Your task to perform on an android device: Show me popular videos on Youtube Image 0: 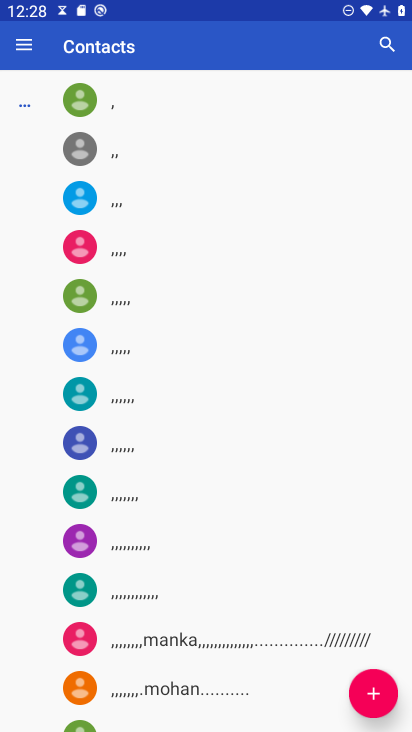
Step 0: press back button
Your task to perform on an android device: Show me popular videos on Youtube Image 1: 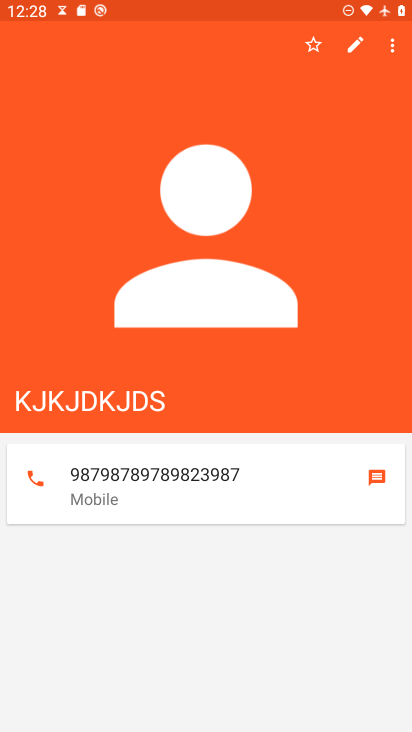
Step 1: press home button
Your task to perform on an android device: Show me popular videos on Youtube Image 2: 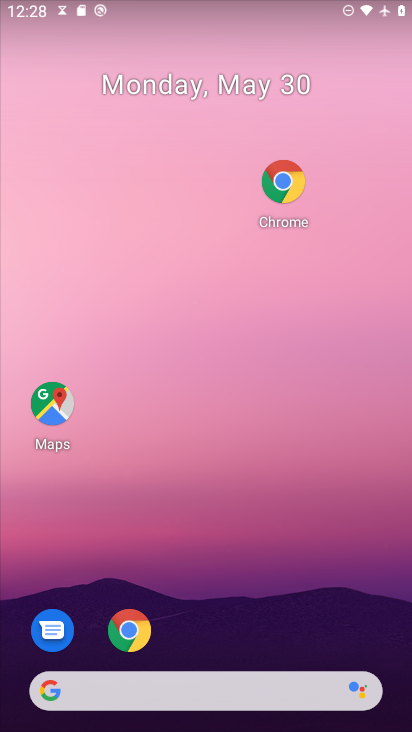
Step 2: drag from (213, 679) to (137, 55)
Your task to perform on an android device: Show me popular videos on Youtube Image 3: 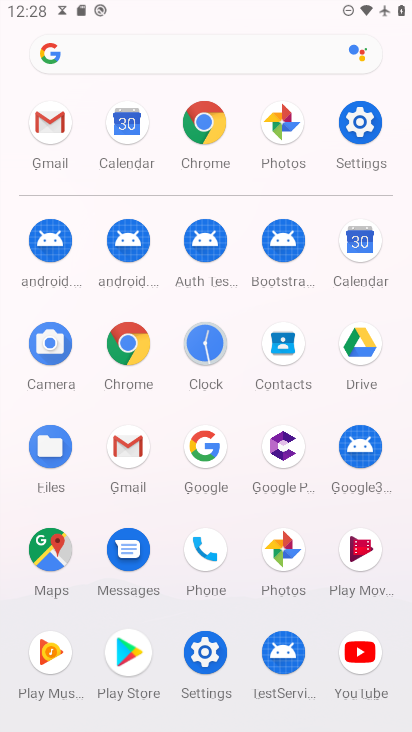
Step 3: click (351, 653)
Your task to perform on an android device: Show me popular videos on Youtube Image 4: 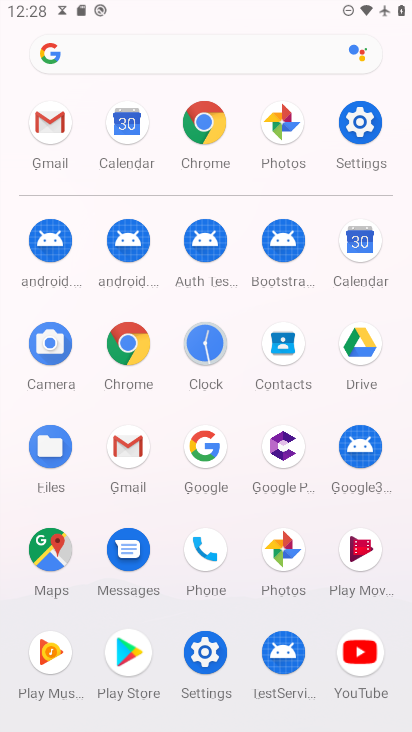
Step 4: click (350, 643)
Your task to perform on an android device: Show me popular videos on Youtube Image 5: 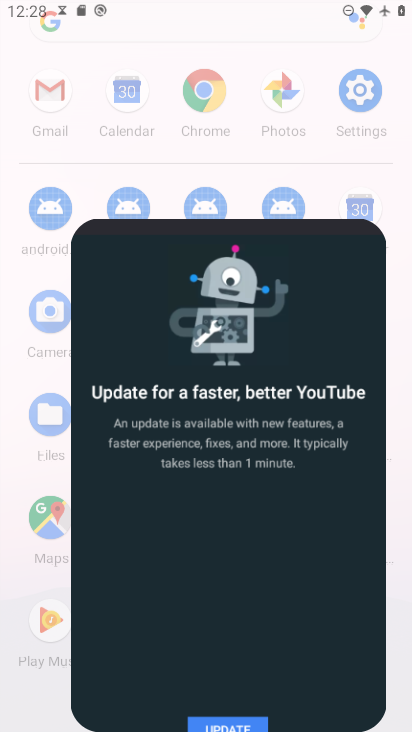
Step 5: click (350, 643)
Your task to perform on an android device: Show me popular videos on Youtube Image 6: 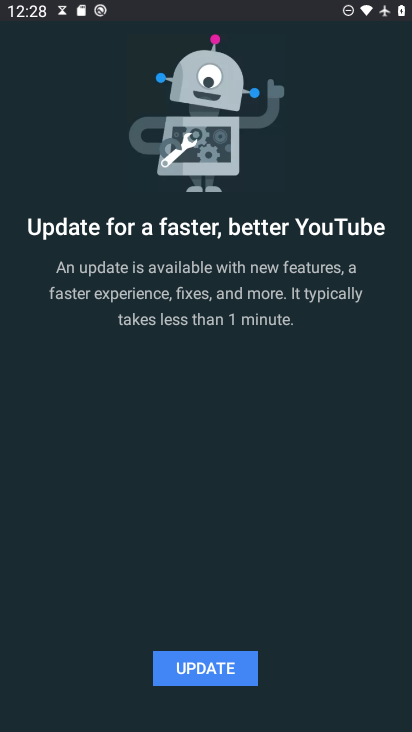
Step 6: press back button
Your task to perform on an android device: Show me popular videos on Youtube Image 7: 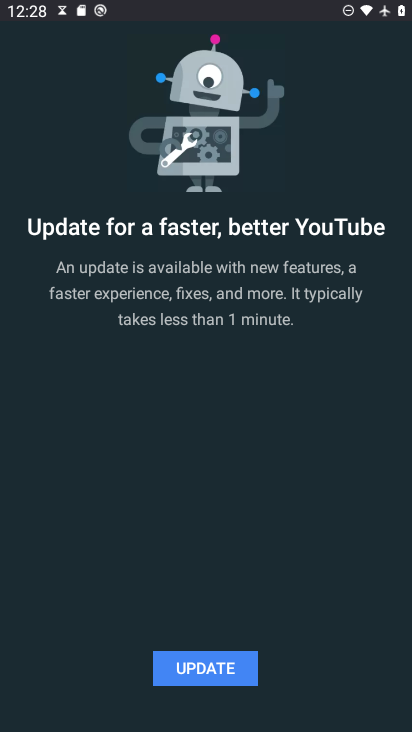
Step 7: press back button
Your task to perform on an android device: Show me popular videos on Youtube Image 8: 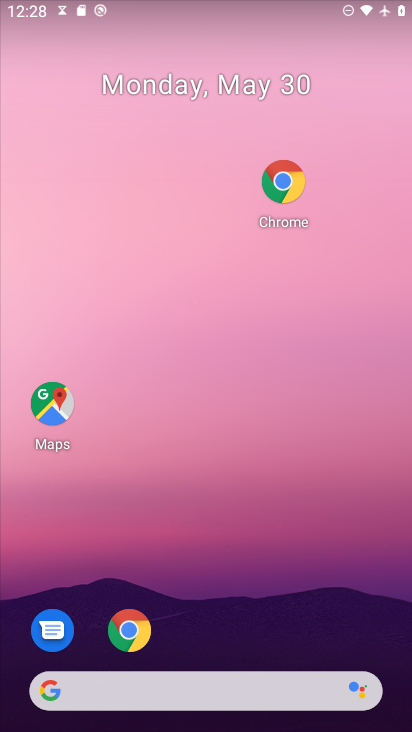
Step 8: drag from (269, 657) to (233, 19)
Your task to perform on an android device: Show me popular videos on Youtube Image 9: 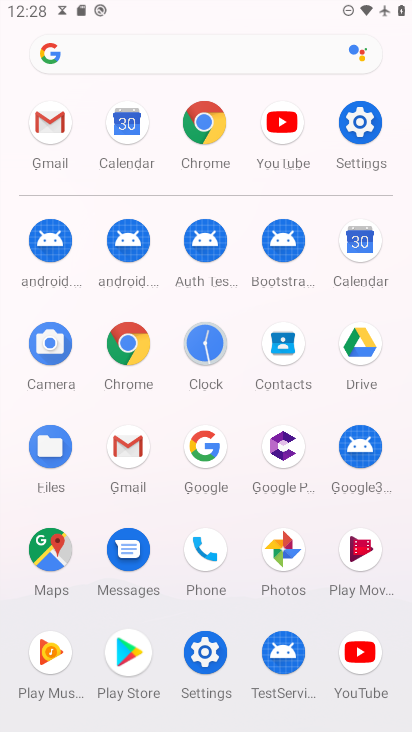
Step 9: click (355, 644)
Your task to perform on an android device: Show me popular videos on Youtube Image 10: 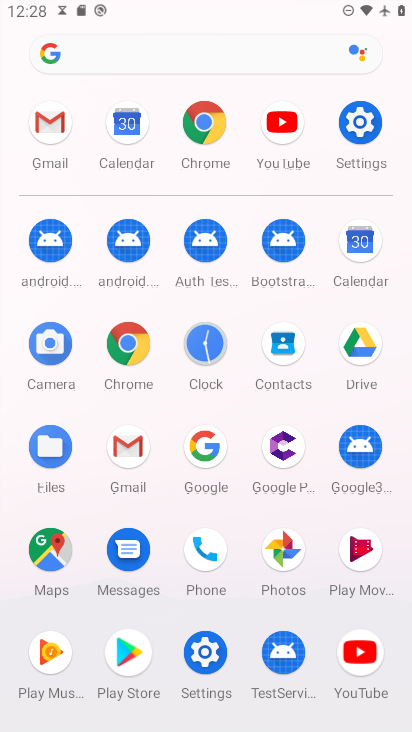
Step 10: click (355, 644)
Your task to perform on an android device: Show me popular videos on Youtube Image 11: 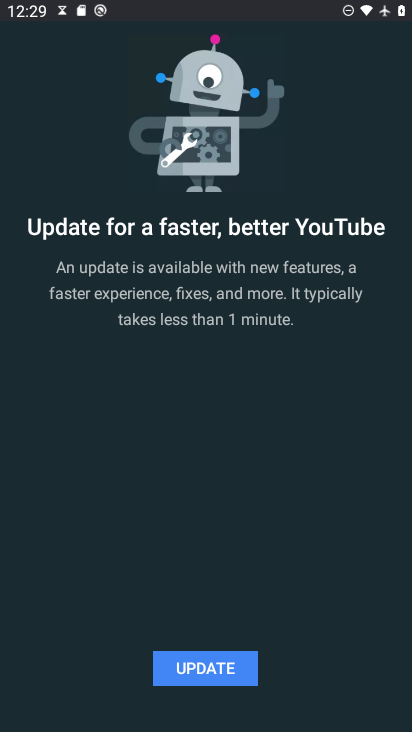
Step 11: click (212, 661)
Your task to perform on an android device: Show me popular videos on Youtube Image 12: 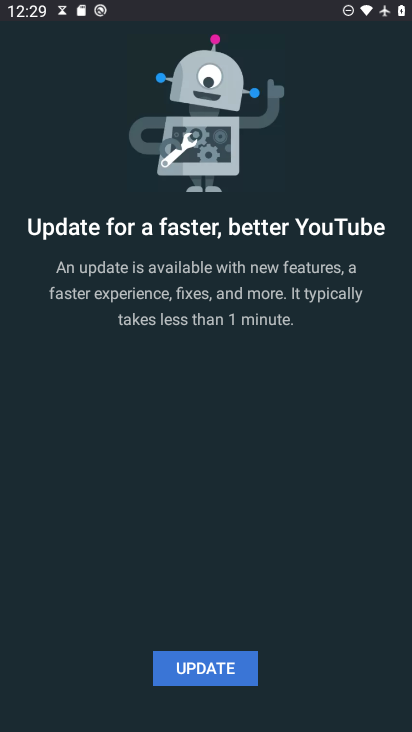
Step 12: click (204, 666)
Your task to perform on an android device: Show me popular videos on Youtube Image 13: 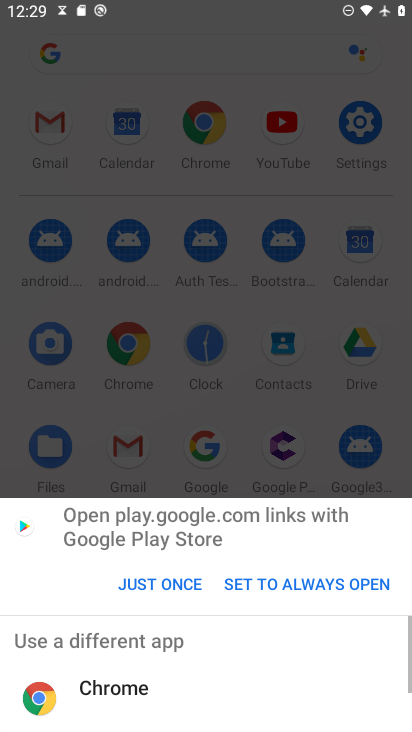
Step 13: click (114, 692)
Your task to perform on an android device: Show me popular videos on Youtube Image 14: 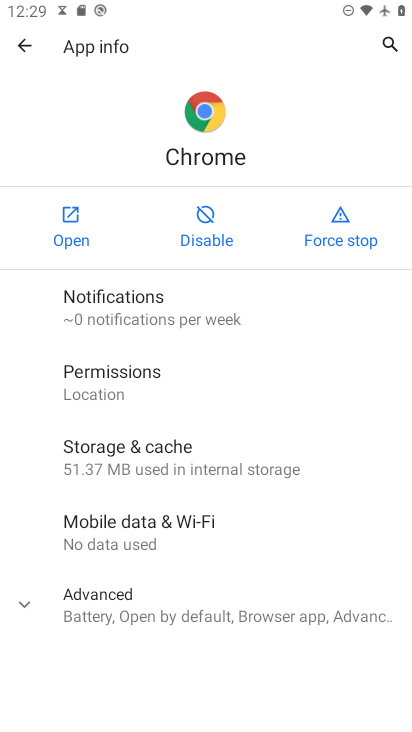
Step 14: click (9, 45)
Your task to perform on an android device: Show me popular videos on Youtube Image 15: 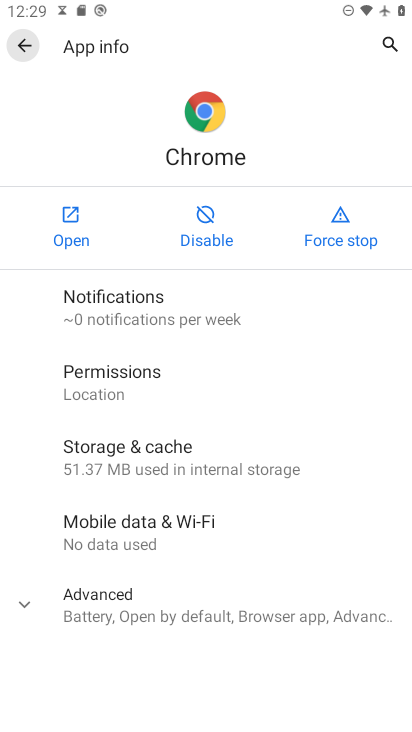
Step 15: click (17, 44)
Your task to perform on an android device: Show me popular videos on Youtube Image 16: 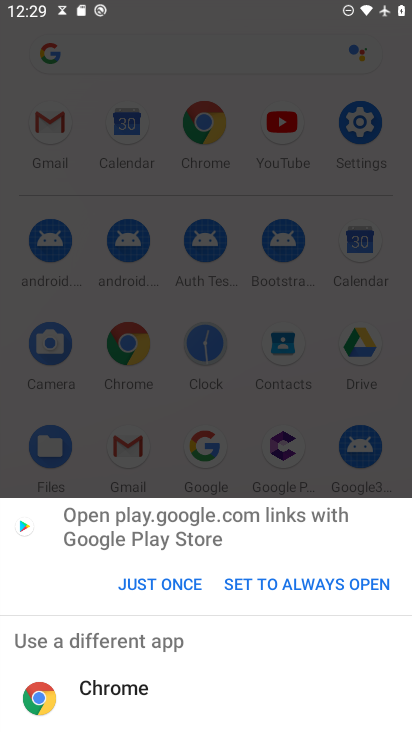
Step 16: task complete